Your task to perform on an android device: Open location settings Image 0: 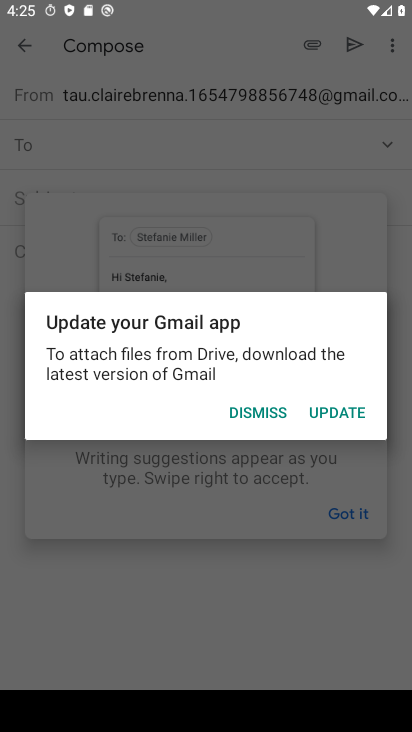
Step 0: press home button
Your task to perform on an android device: Open location settings Image 1: 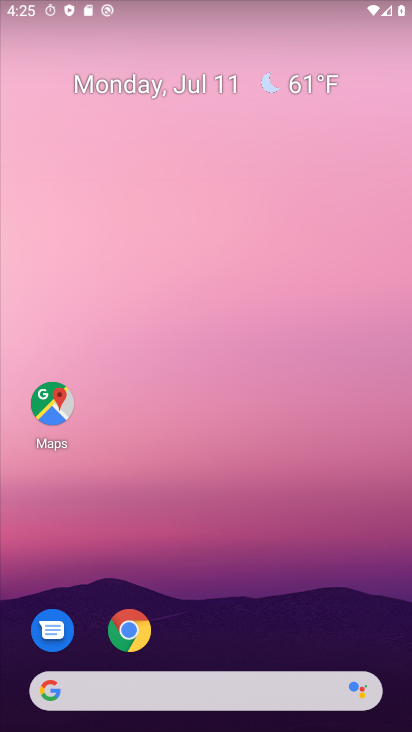
Step 1: drag from (316, 491) to (407, 9)
Your task to perform on an android device: Open location settings Image 2: 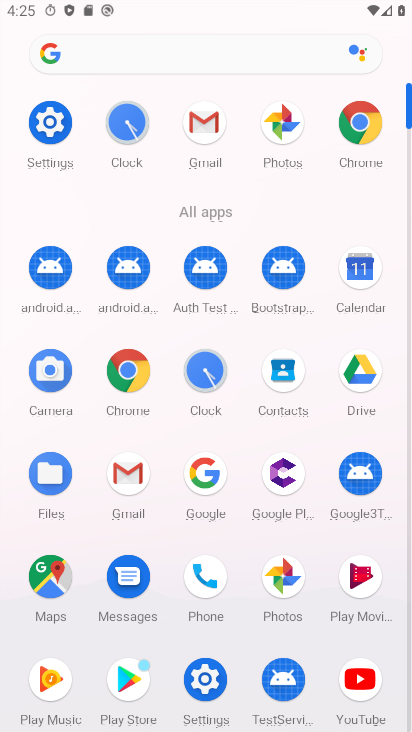
Step 2: click (49, 127)
Your task to perform on an android device: Open location settings Image 3: 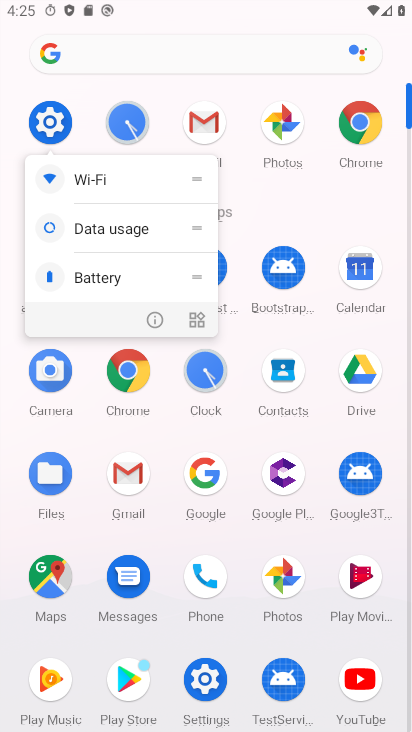
Step 3: click (204, 137)
Your task to perform on an android device: Open location settings Image 4: 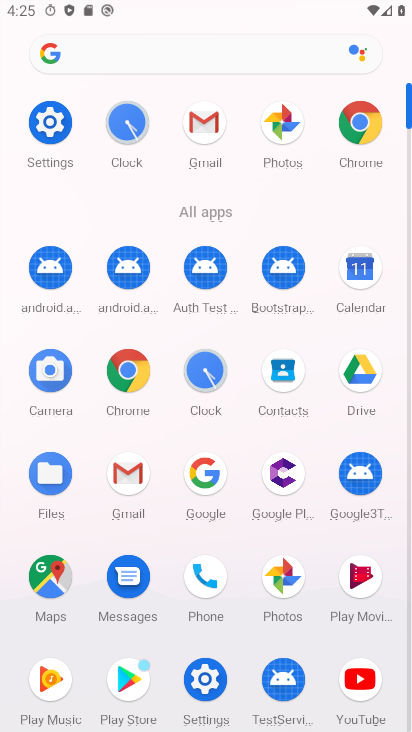
Step 4: click (48, 155)
Your task to perform on an android device: Open location settings Image 5: 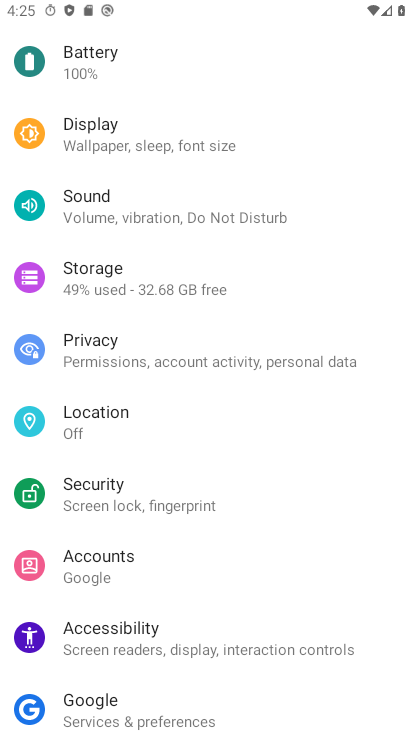
Step 5: click (129, 407)
Your task to perform on an android device: Open location settings Image 6: 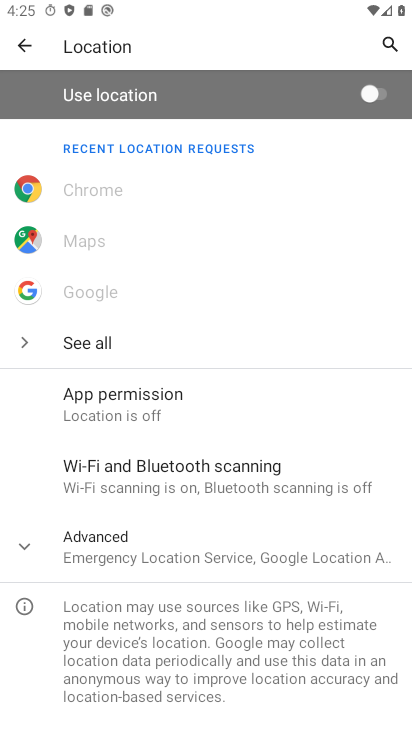
Step 6: task complete